Your task to perform on an android device: Search for "bose soundsport free" on bestbuy, select the first entry, add it to the cart, then select checkout. Image 0: 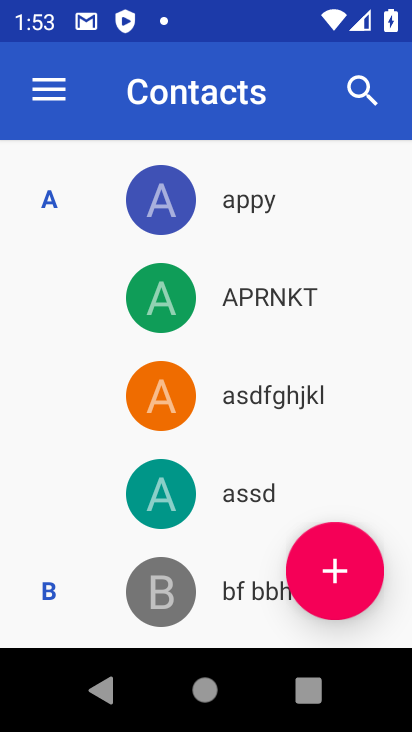
Step 0: press home button
Your task to perform on an android device: Search for "bose soundsport free" on bestbuy, select the first entry, add it to the cart, then select checkout. Image 1: 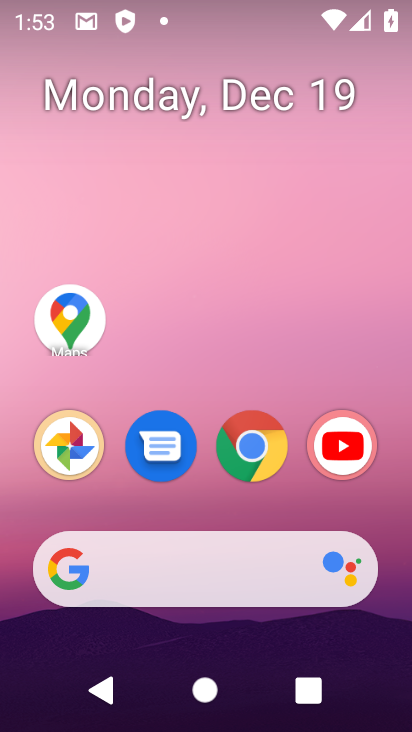
Step 1: click (255, 472)
Your task to perform on an android device: Search for "bose soundsport free" on bestbuy, select the first entry, add it to the cart, then select checkout. Image 2: 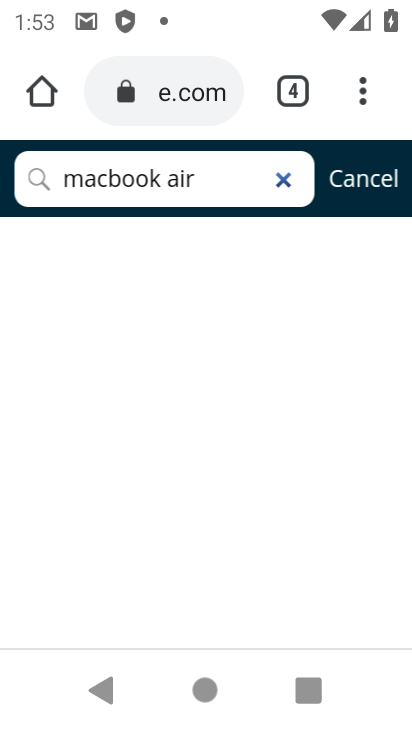
Step 2: click (203, 84)
Your task to perform on an android device: Search for "bose soundsport free" on bestbuy, select the first entry, add it to the cart, then select checkout. Image 3: 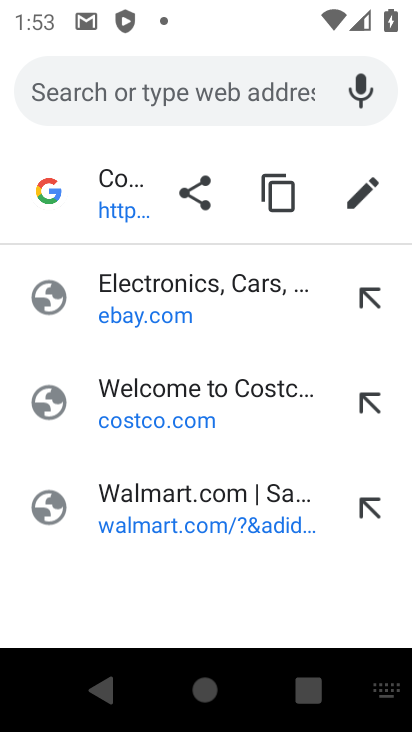
Step 3: type "bestbuy"
Your task to perform on an android device: Search for "bose soundsport free" on bestbuy, select the first entry, add it to the cart, then select checkout. Image 4: 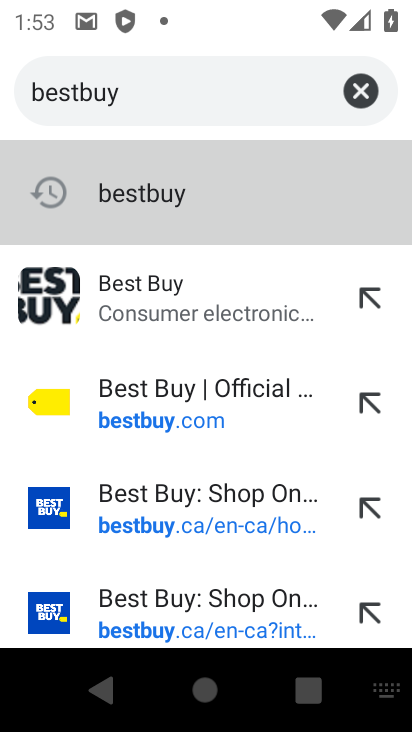
Step 4: click (138, 387)
Your task to perform on an android device: Search for "bose soundsport free" on bestbuy, select the first entry, add it to the cart, then select checkout. Image 5: 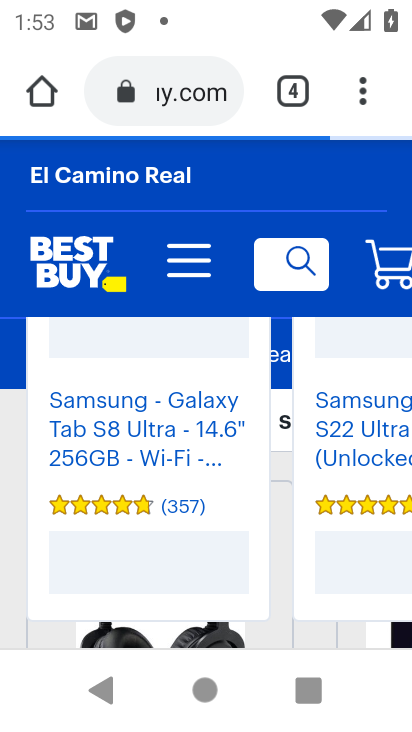
Step 5: click (286, 262)
Your task to perform on an android device: Search for "bose soundsport free" on bestbuy, select the first entry, add it to the cart, then select checkout. Image 6: 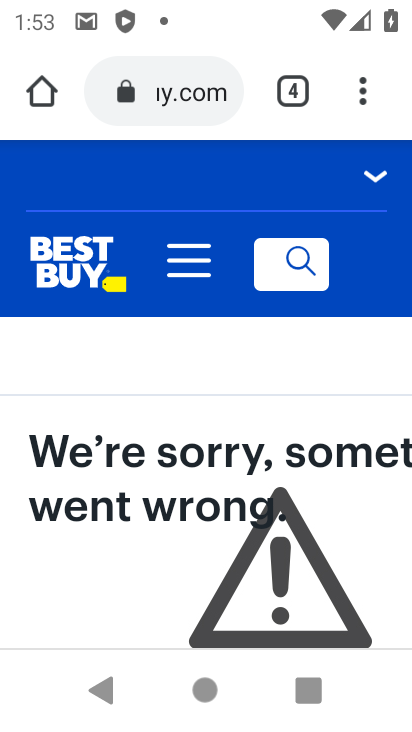
Step 6: click (286, 262)
Your task to perform on an android device: Search for "bose soundsport free" on bestbuy, select the first entry, add it to the cart, then select checkout. Image 7: 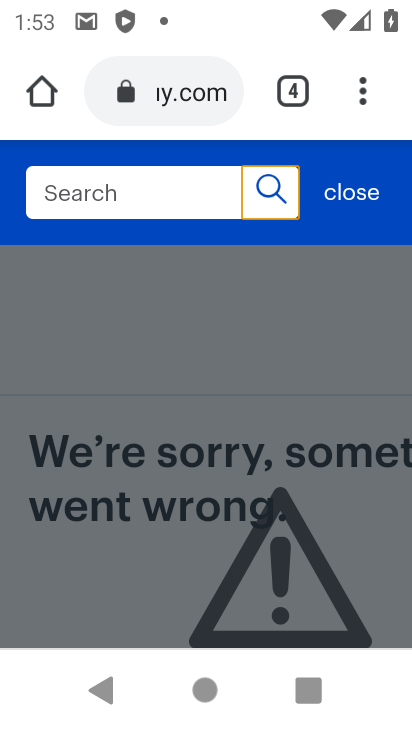
Step 7: task complete